Your task to perform on an android device: turn notification dots on Image 0: 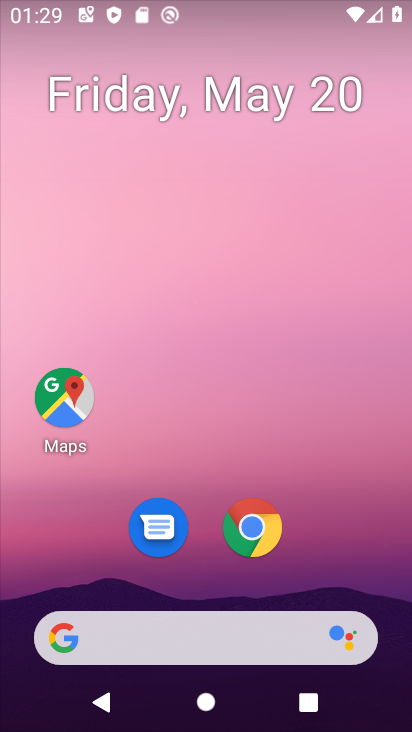
Step 0: press home button
Your task to perform on an android device: turn notification dots on Image 1: 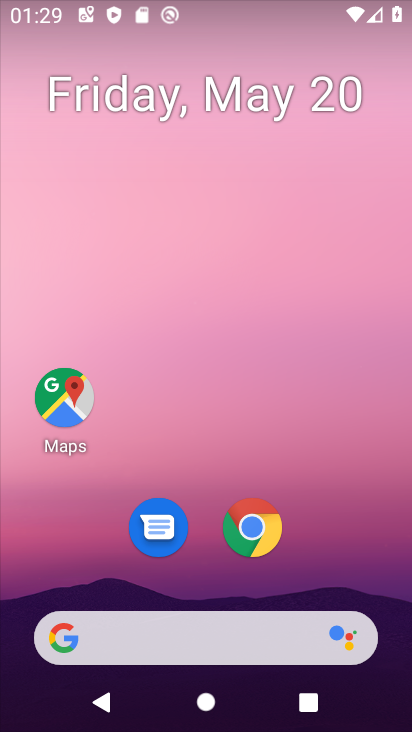
Step 1: drag from (217, 634) to (355, 115)
Your task to perform on an android device: turn notification dots on Image 2: 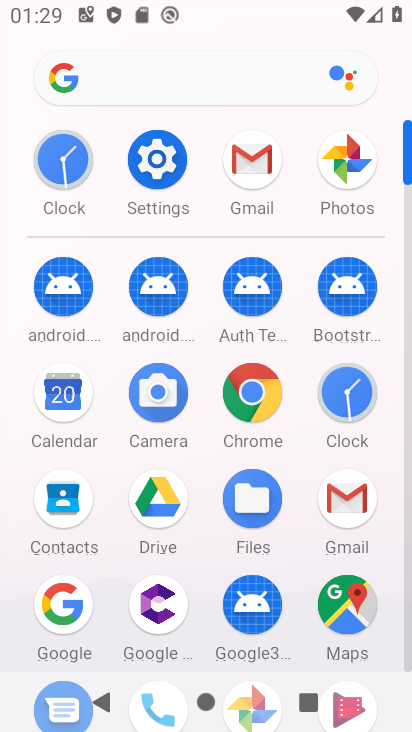
Step 2: click (150, 175)
Your task to perform on an android device: turn notification dots on Image 3: 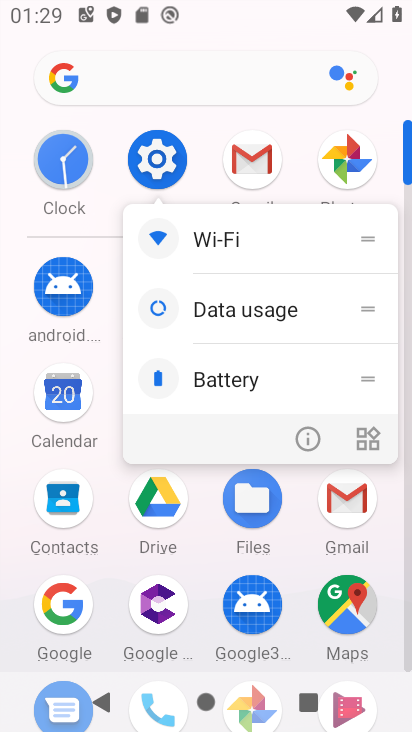
Step 3: click (156, 168)
Your task to perform on an android device: turn notification dots on Image 4: 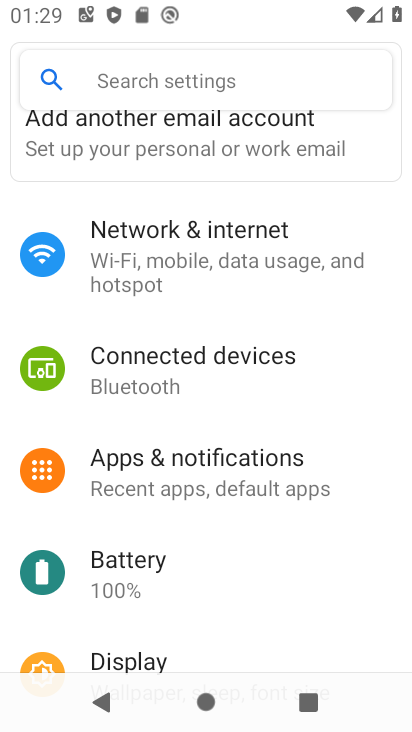
Step 4: click (197, 456)
Your task to perform on an android device: turn notification dots on Image 5: 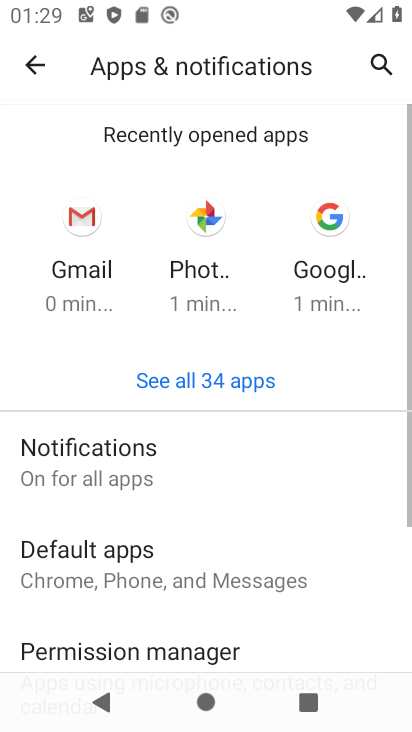
Step 5: click (130, 471)
Your task to perform on an android device: turn notification dots on Image 6: 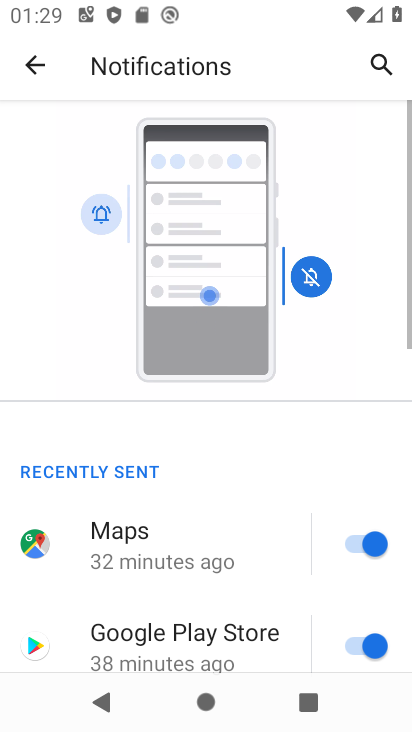
Step 6: drag from (266, 627) to (386, 165)
Your task to perform on an android device: turn notification dots on Image 7: 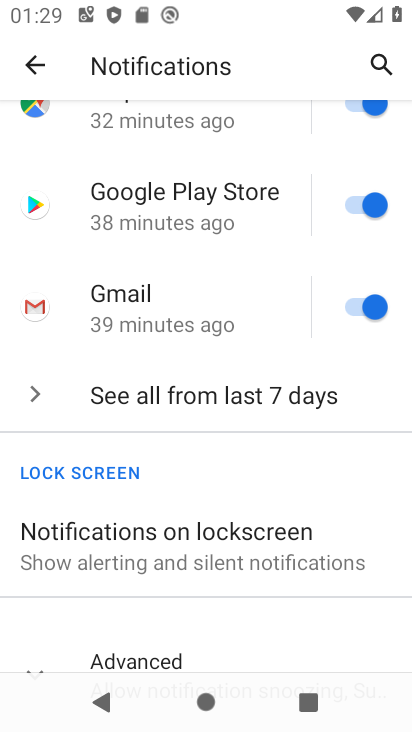
Step 7: drag from (211, 506) to (331, 208)
Your task to perform on an android device: turn notification dots on Image 8: 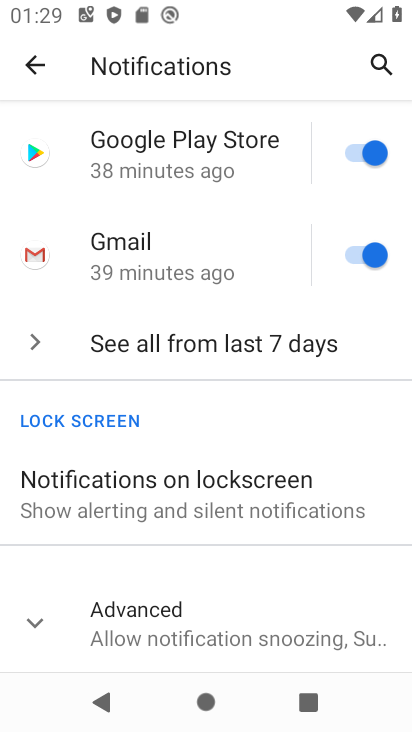
Step 8: click (167, 619)
Your task to perform on an android device: turn notification dots on Image 9: 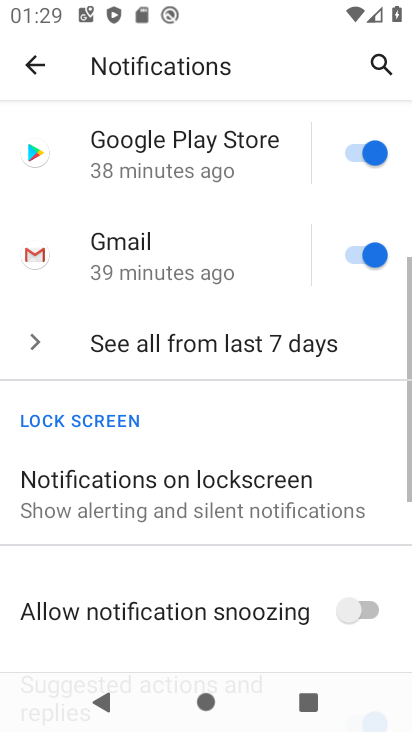
Step 9: task complete